Your task to perform on an android device: check out phone information Image 0: 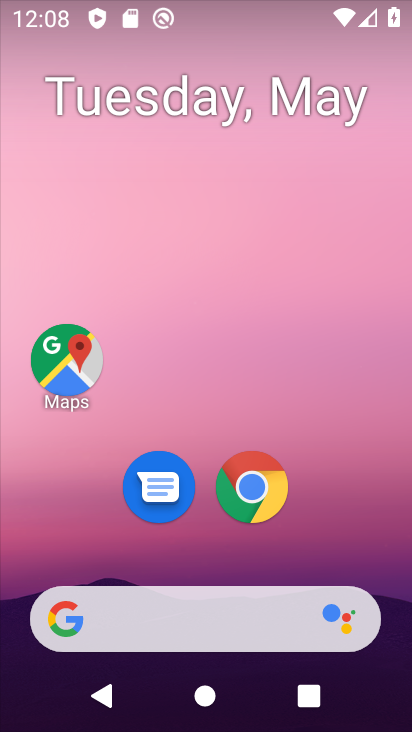
Step 0: drag from (351, 338) to (183, 1)
Your task to perform on an android device: check out phone information Image 1: 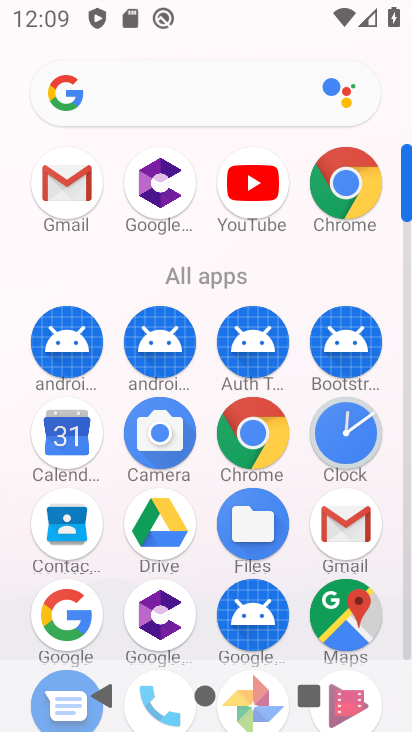
Step 1: drag from (256, 615) to (263, 144)
Your task to perform on an android device: check out phone information Image 2: 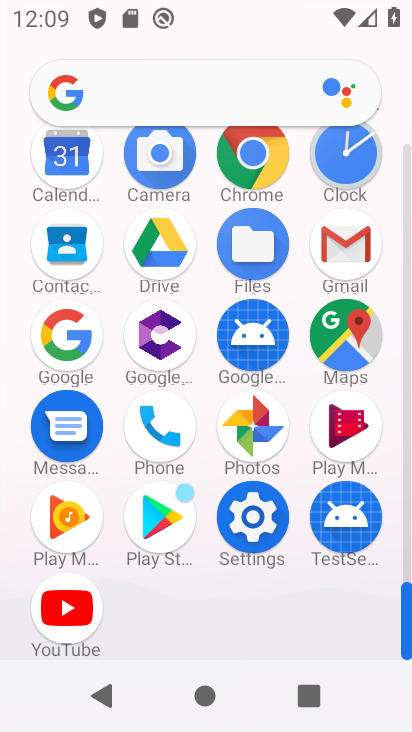
Step 2: click (263, 515)
Your task to perform on an android device: check out phone information Image 3: 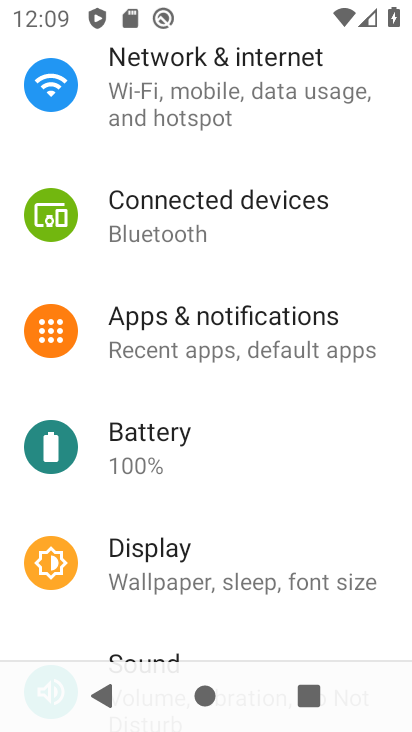
Step 3: drag from (305, 587) to (328, 41)
Your task to perform on an android device: check out phone information Image 4: 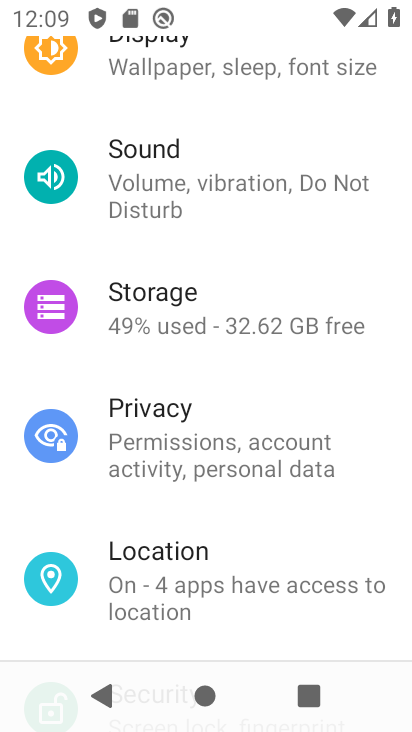
Step 4: drag from (268, 575) to (236, 111)
Your task to perform on an android device: check out phone information Image 5: 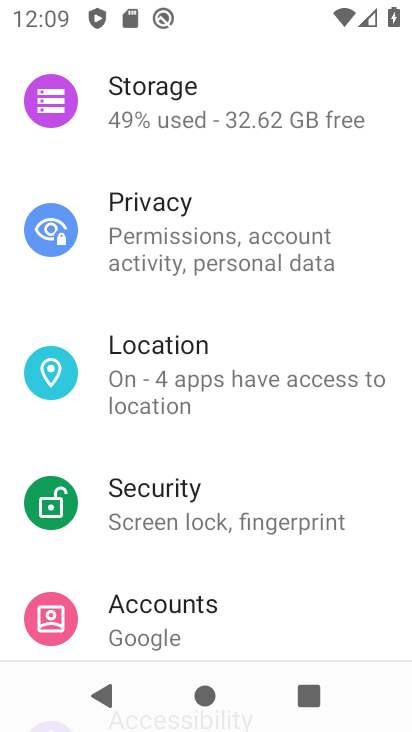
Step 5: drag from (309, 578) to (294, 367)
Your task to perform on an android device: check out phone information Image 6: 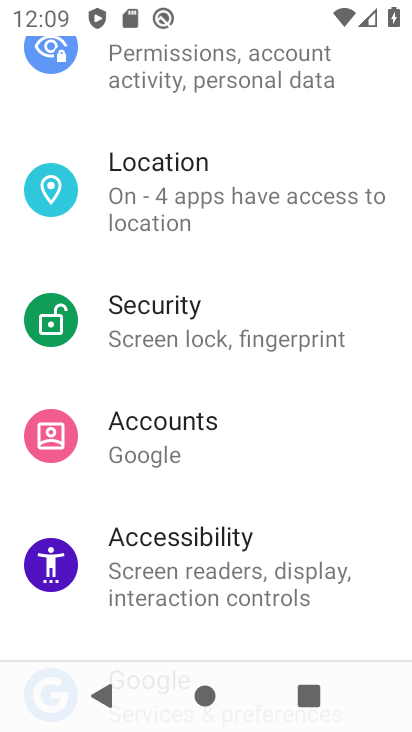
Step 6: drag from (312, 581) to (313, 132)
Your task to perform on an android device: check out phone information Image 7: 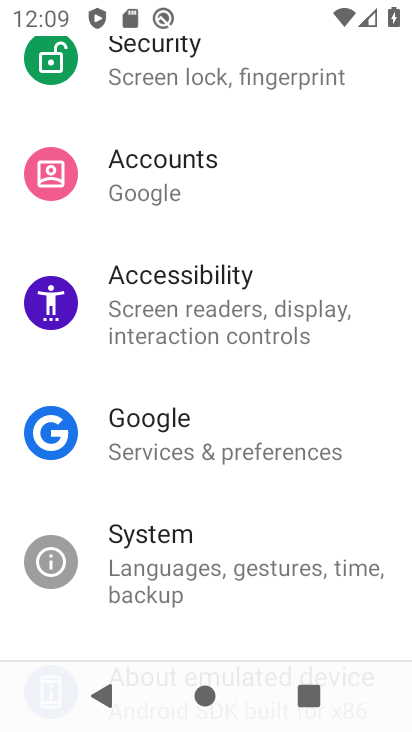
Step 7: click (242, 542)
Your task to perform on an android device: check out phone information Image 8: 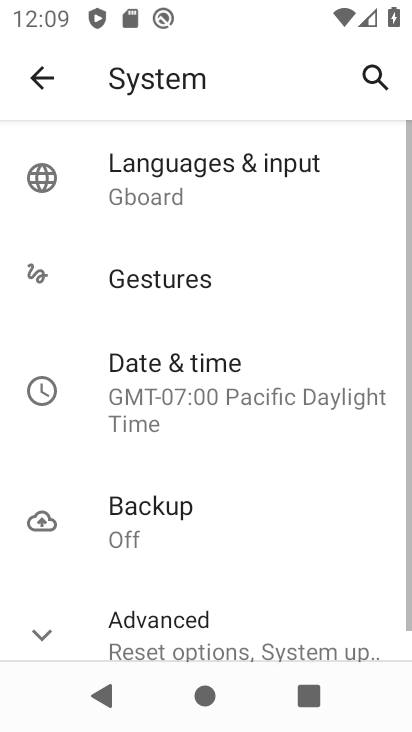
Step 8: task complete